Your task to perform on an android device: open a new tab in the chrome app Image 0: 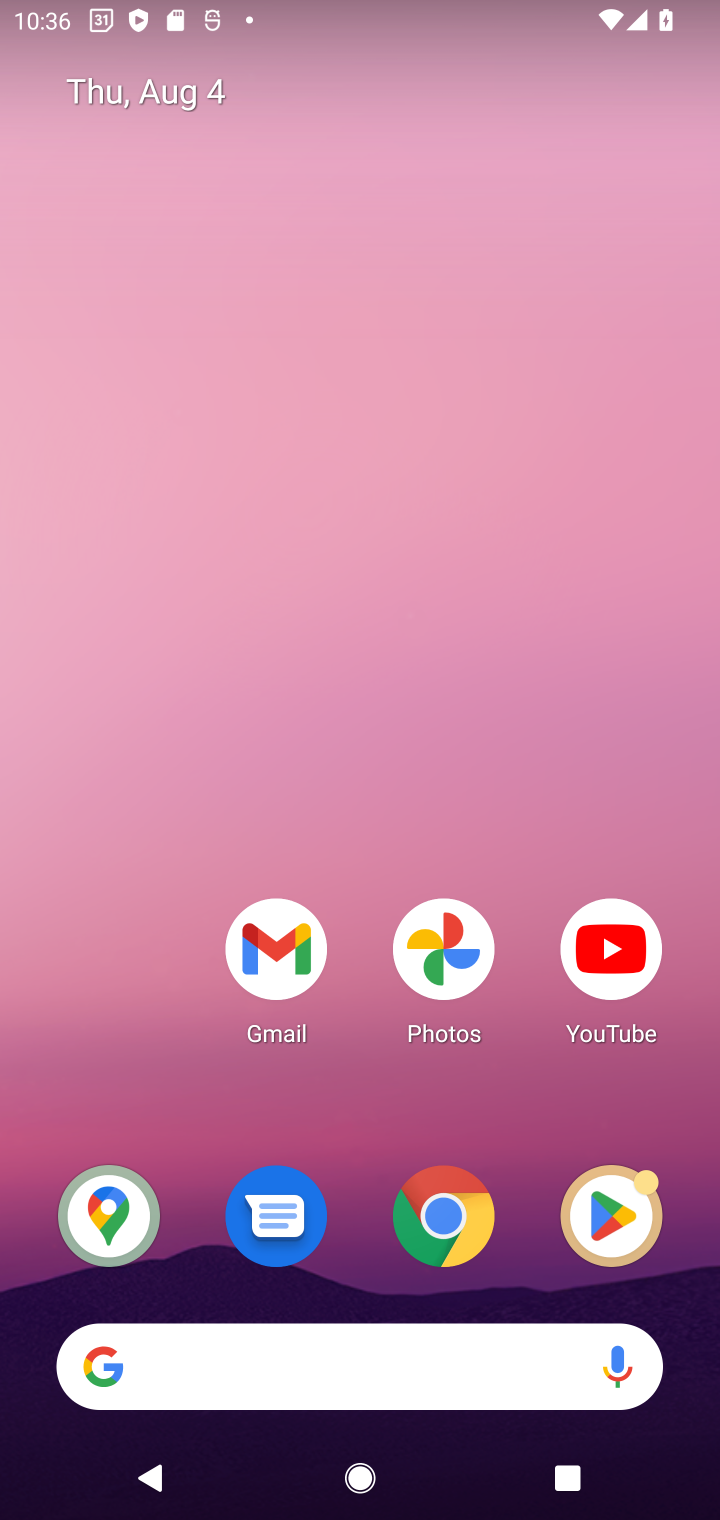
Step 0: click (442, 1223)
Your task to perform on an android device: open a new tab in the chrome app Image 1: 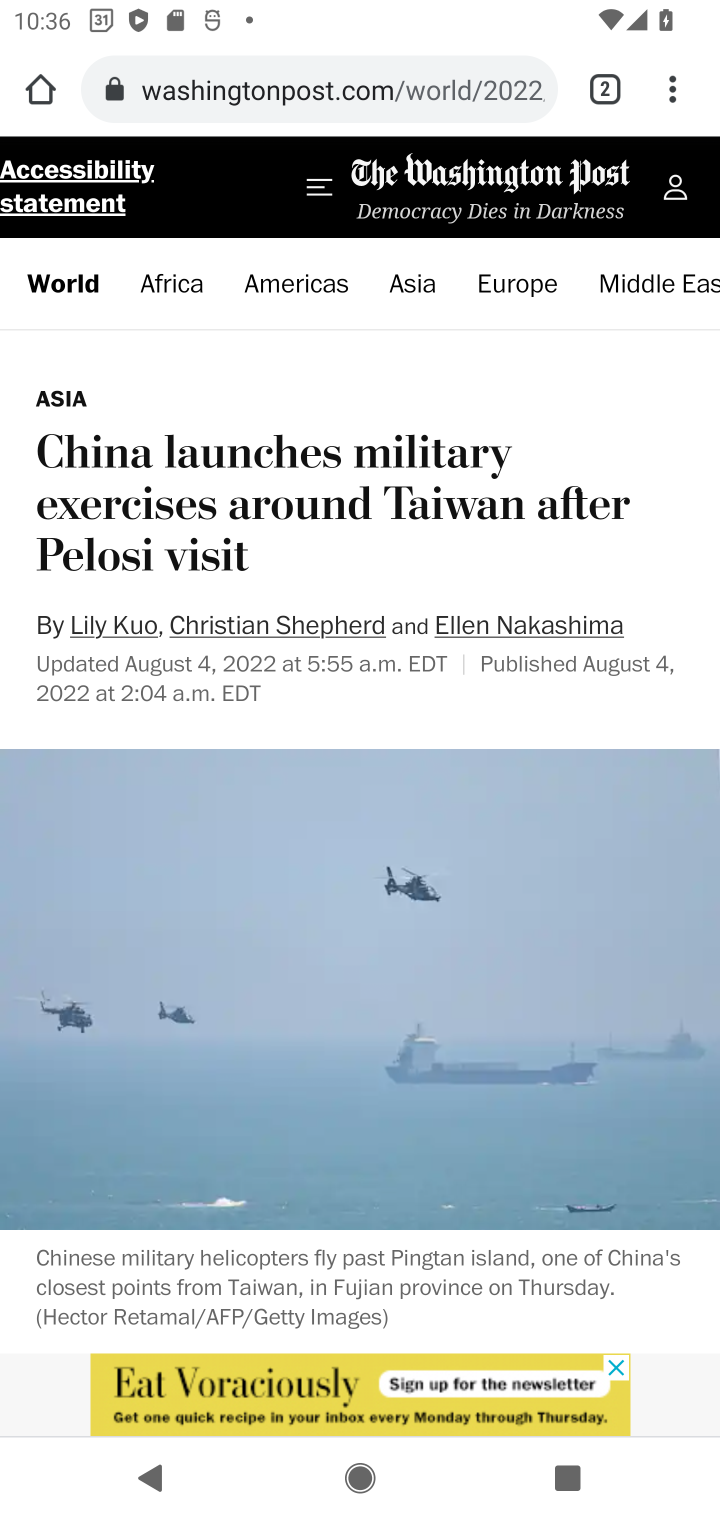
Step 1: click (671, 87)
Your task to perform on an android device: open a new tab in the chrome app Image 2: 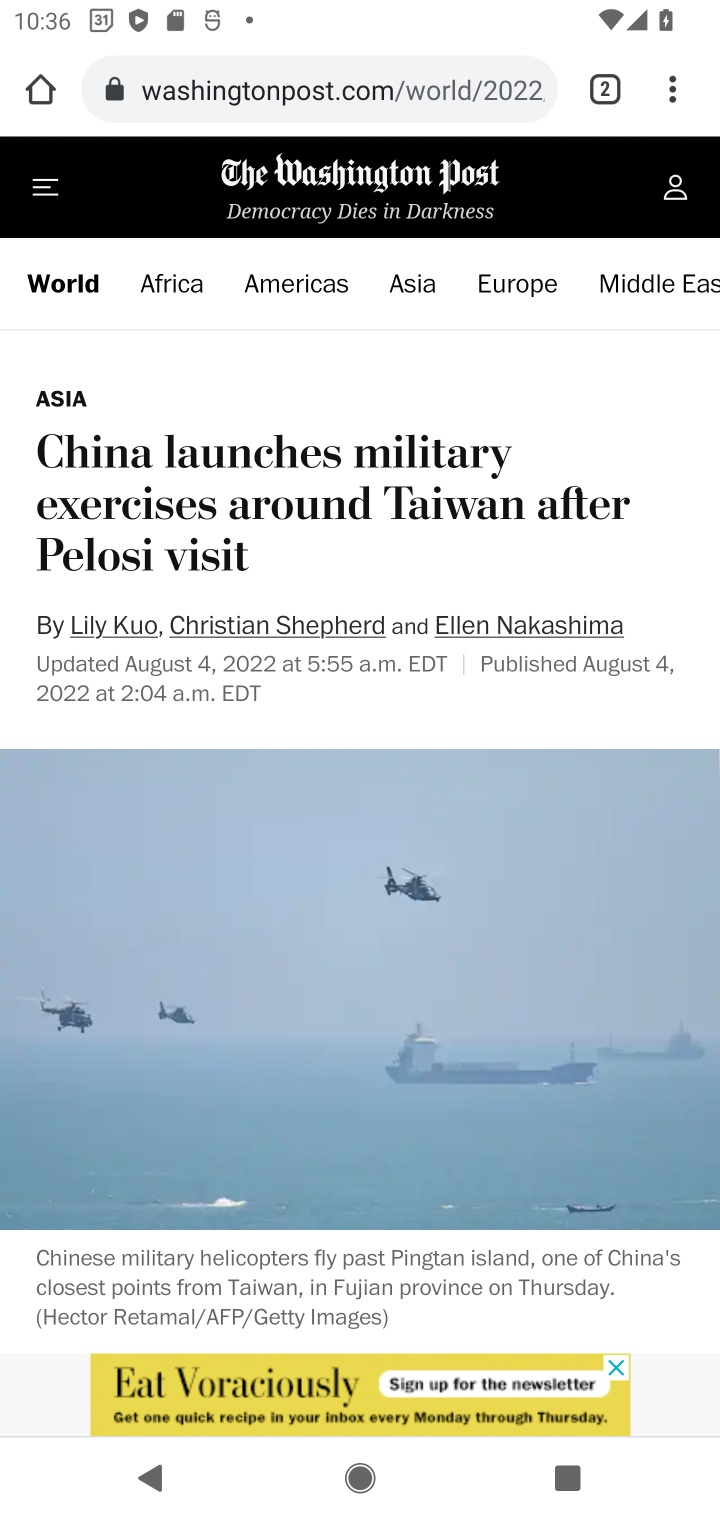
Step 2: click (675, 89)
Your task to perform on an android device: open a new tab in the chrome app Image 3: 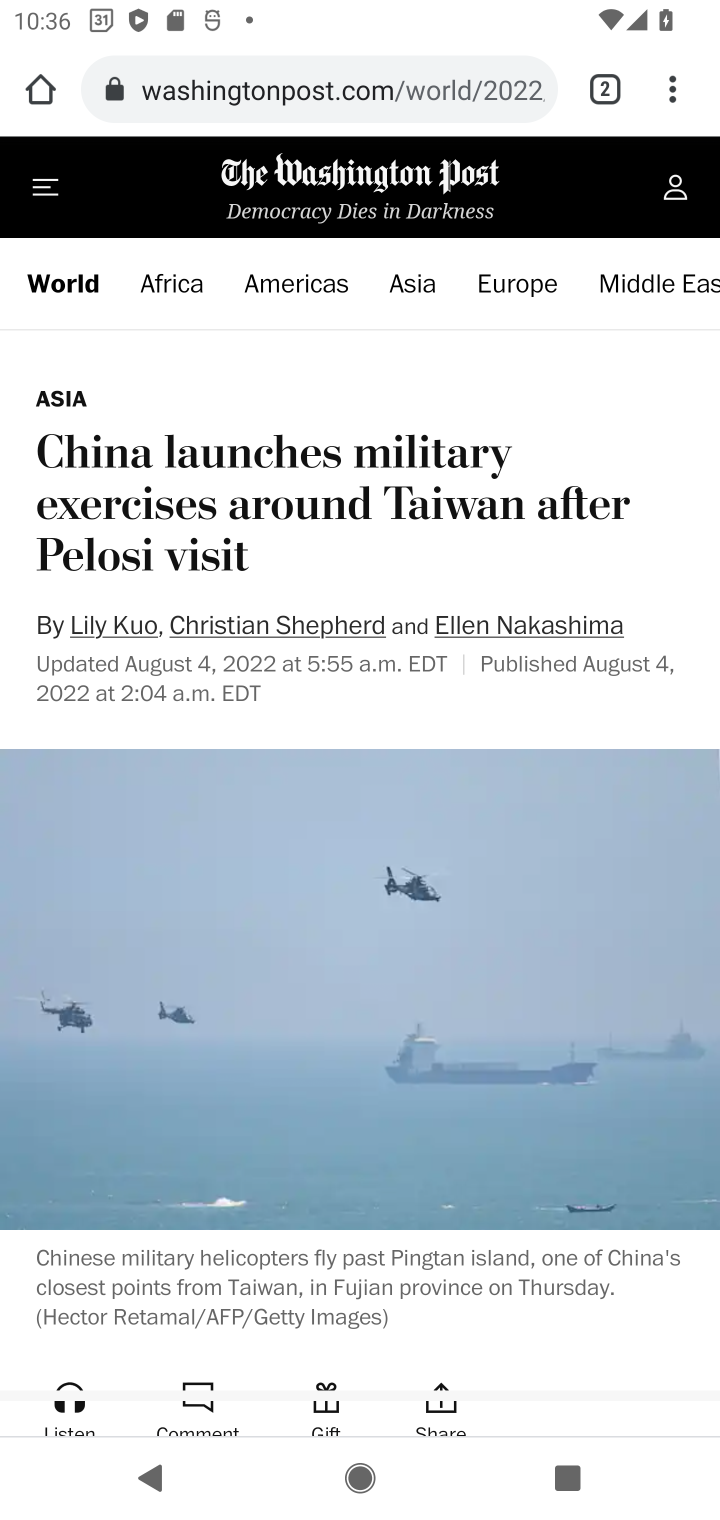
Step 3: task complete